Your task to perform on an android device: Search for sushi restaurants on Maps Image 0: 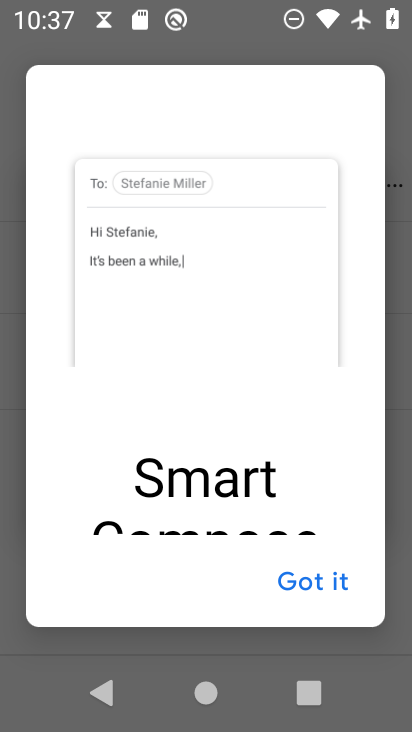
Step 0: press back button
Your task to perform on an android device: Search for sushi restaurants on Maps Image 1: 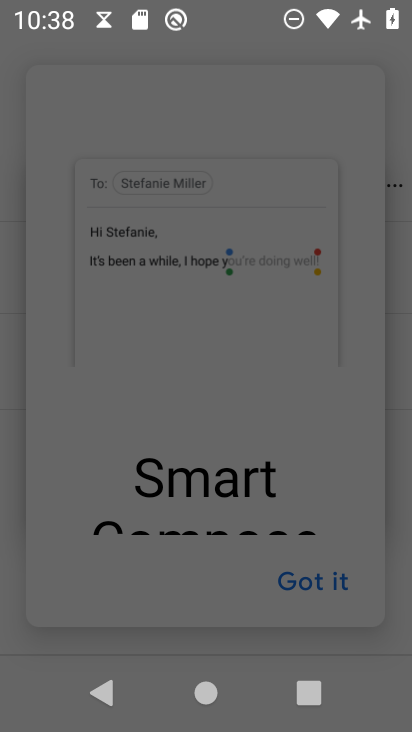
Step 1: press back button
Your task to perform on an android device: Search for sushi restaurants on Maps Image 2: 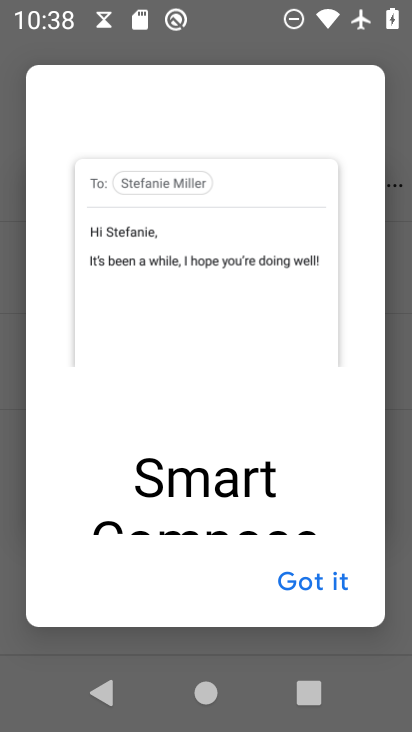
Step 2: press home button
Your task to perform on an android device: Search for sushi restaurants on Maps Image 3: 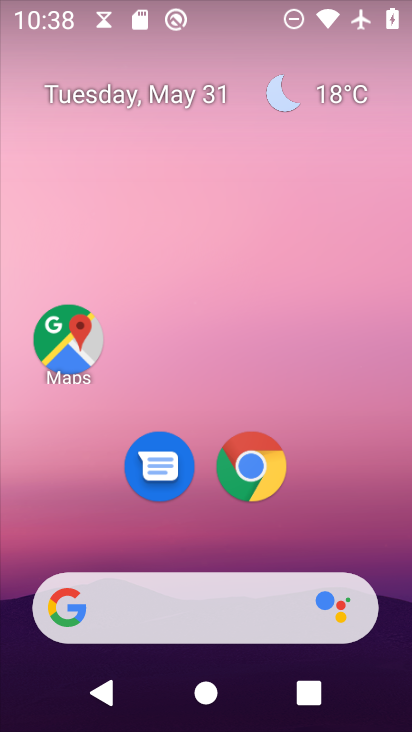
Step 3: drag from (363, 555) to (269, 5)
Your task to perform on an android device: Search for sushi restaurants on Maps Image 4: 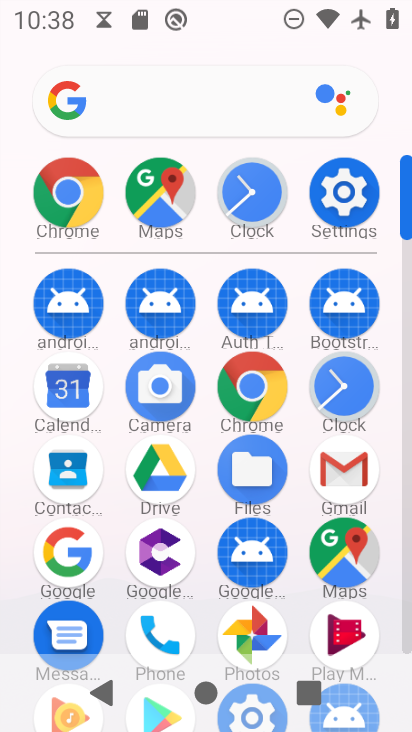
Step 4: click (150, 195)
Your task to perform on an android device: Search for sushi restaurants on Maps Image 5: 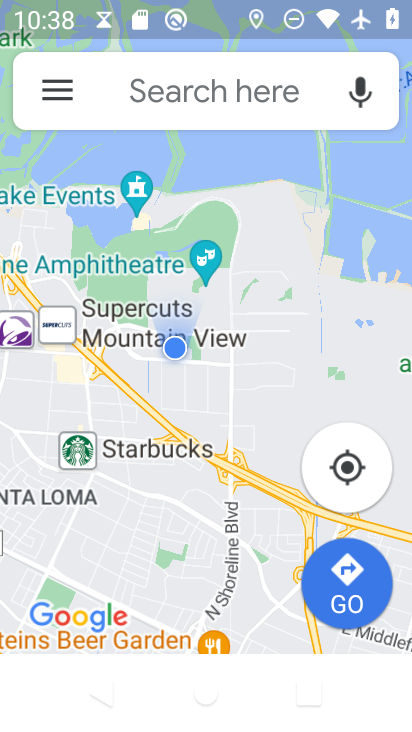
Step 5: click (129, 91)
Your task to perform on an android device: Search for sushi restaurants on Maps Image 6: 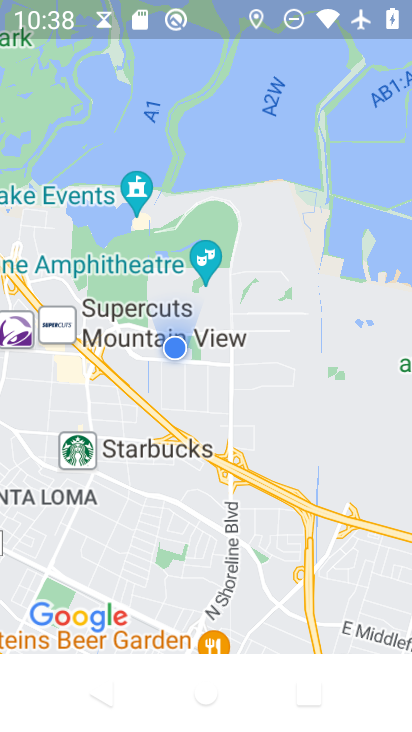
Step 6: click (268, 308)
Your task to perform on an android device: Search for sushi restaurants on Maps Image 7: 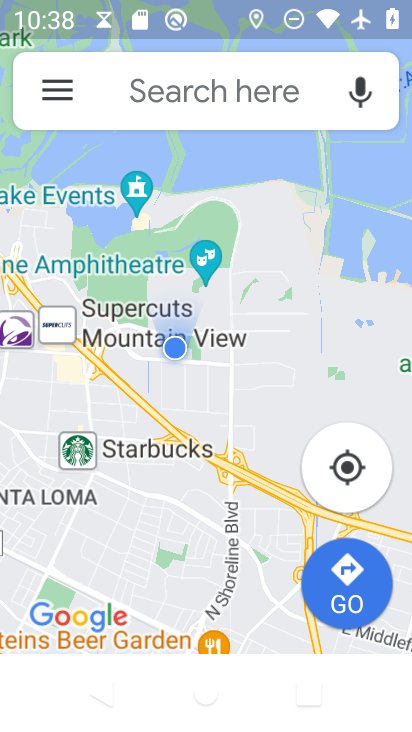
Step 7: click (304, 95)
Your task to perform on an android device: Search for sushi restaurants on Maps Image 8: 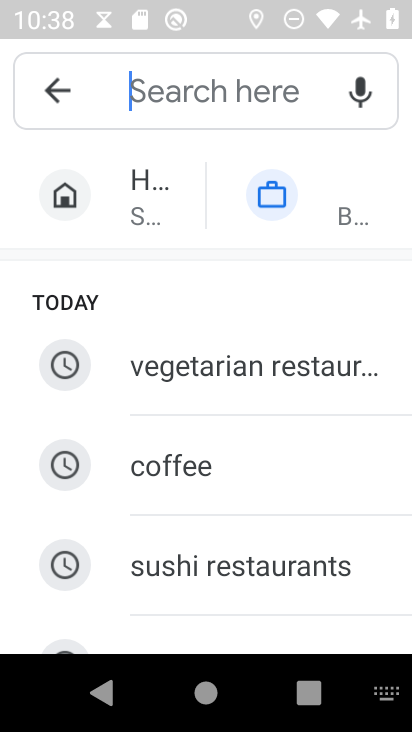
Step 8: click (209, 535)
Your task to perform on an android device: Search for sushi restaurants on Maps Image 9: 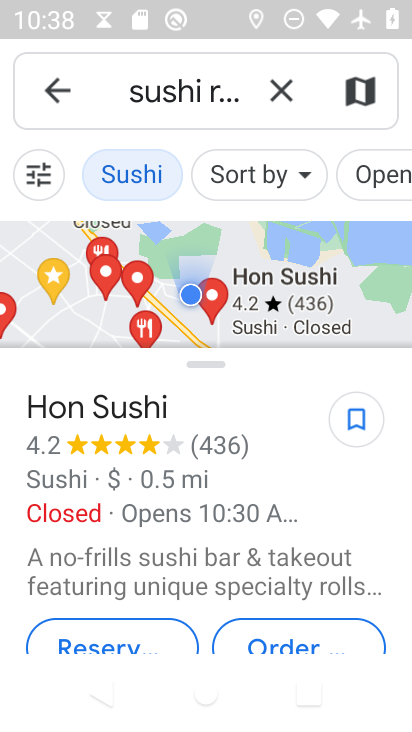
Step 9: task complete